Your task to perform on an android device: turn off javascript in the chrome app Image 0: 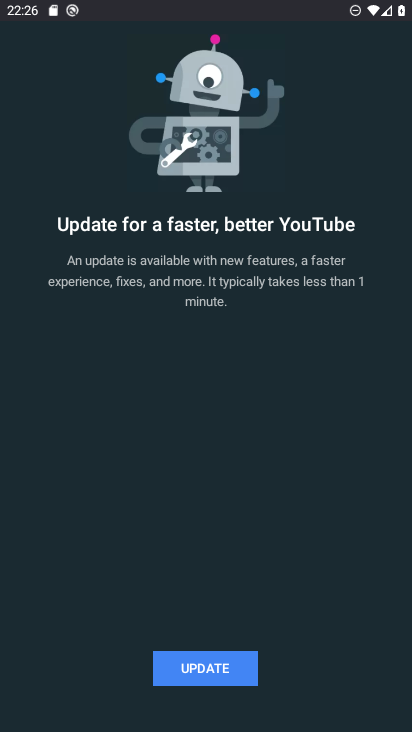
Step 0: press home button
Your task to perform on an android device: turn off javascript in the chrome app Image 1: 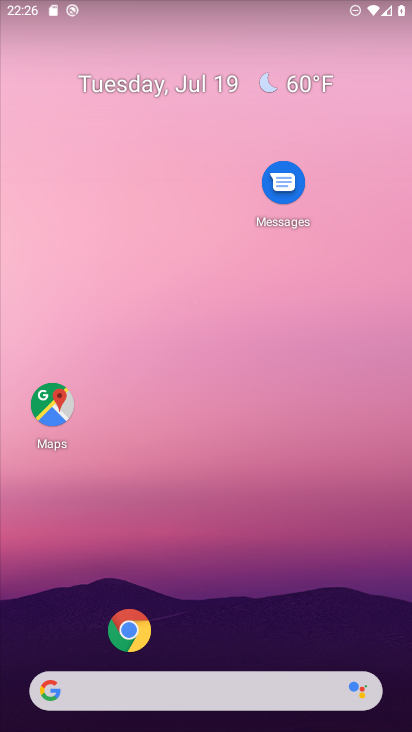
Step 1: click (114, 633)
Your task to perform on an android device: turn off javascript in the chrome app Image 2: 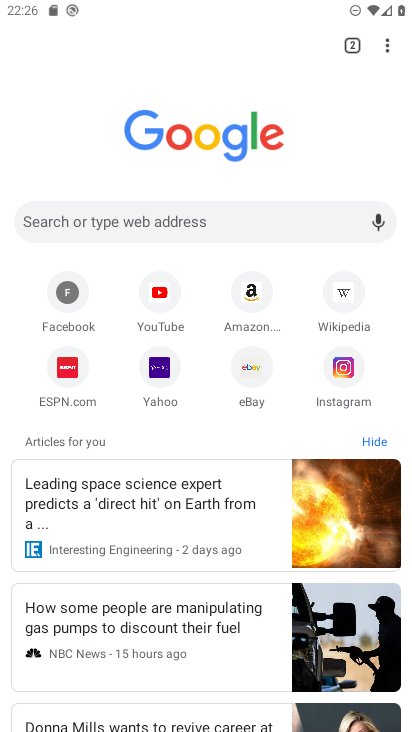
Step 2: click (390, 46)
Your task to perform on an android device: turn off javascript in the chrome app Image 3: 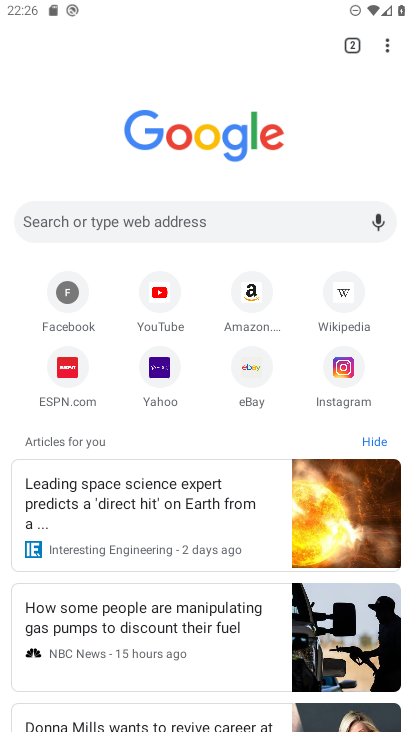
Step 3: click (389, 45)
Your task to perform on an android device: turn off javascript in the chrome app Image 4: 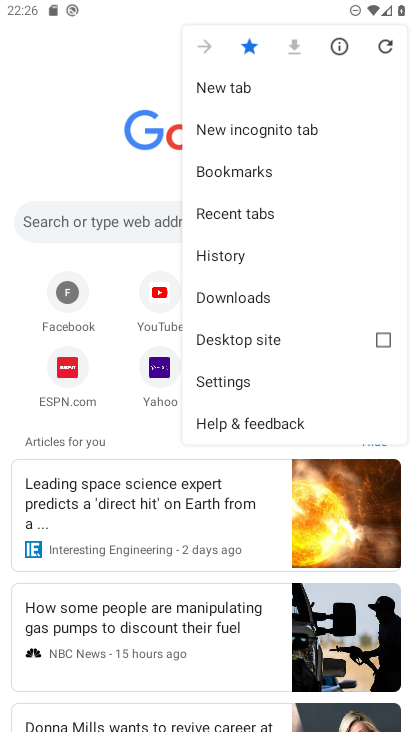
Step 4: click (219, 381)
Your task to perform on an android device: turn off javascript in the chrome app Image 5: 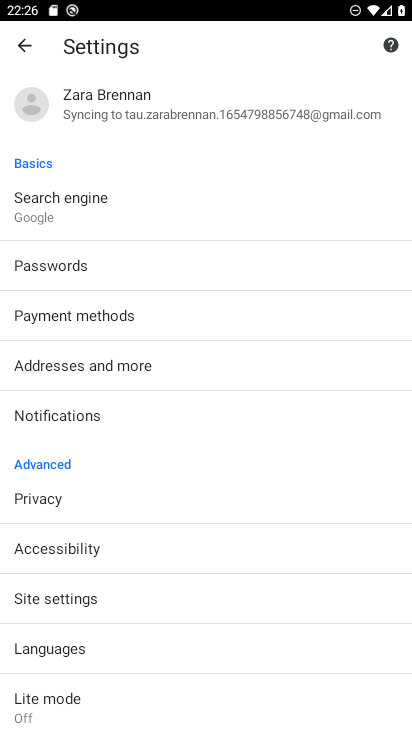
Step 5: click (57, 603)
Your task to perform on an android device: turn off javascript in the chrome app Image 6: 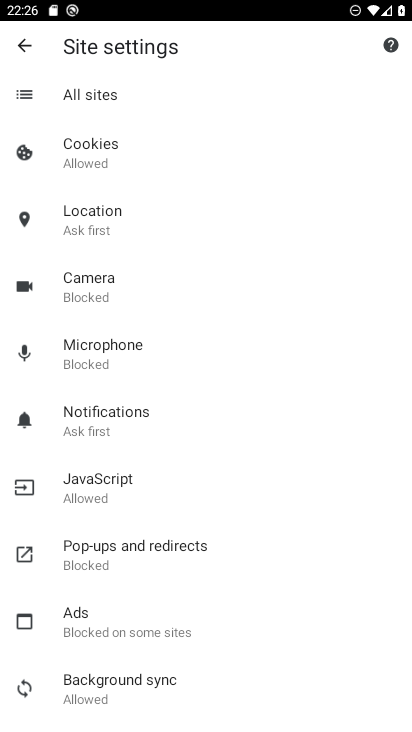
Step 6: click (98, 497)
Your task to perform on an android device: turn off javascript in the chrome app Image 7: 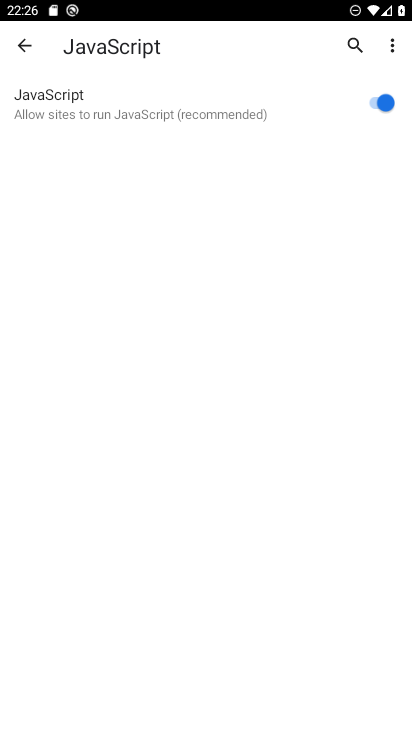
Step 7: task complete